Your task to perform on an android device: Go to Reddit.com Image 0: 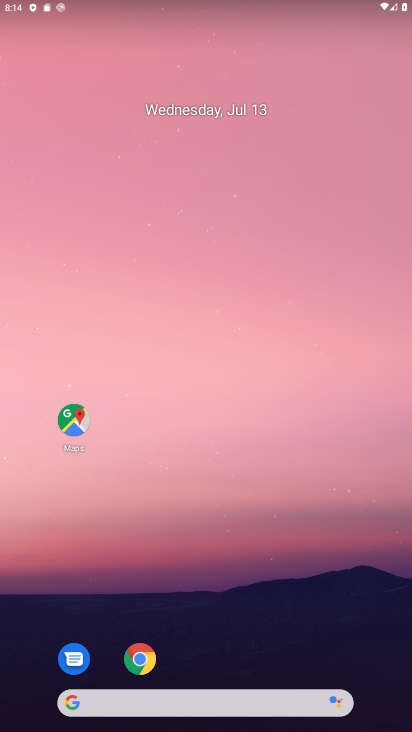
Step 0: click (132, 650)
Your task to perform on an android device: Go to Reddit.com Image 1: 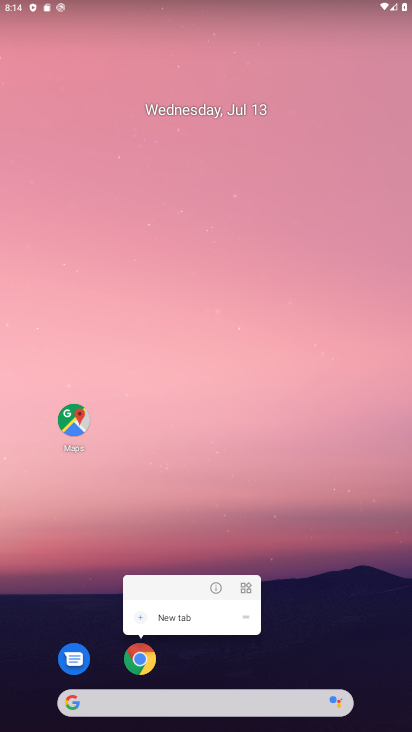
Step 1: click (132, 650)
Your task to perform on an android device: Go to Reddit.com Image 2: 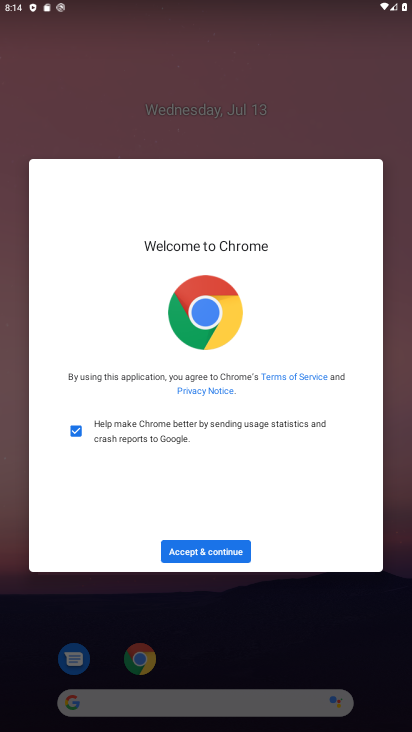
Step 2: click (202, 552)
Your task to perform on an android device: Go to Reddit.com Image 3: 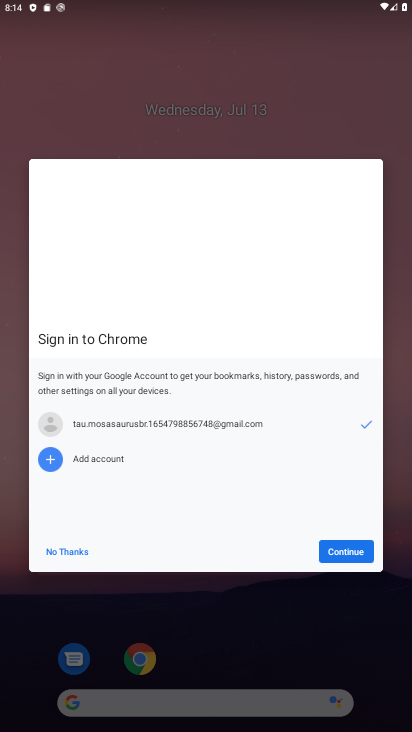
Step 3: click (55, 553)
Your task to perform on an android device: Go to Reddit.com Image 4: 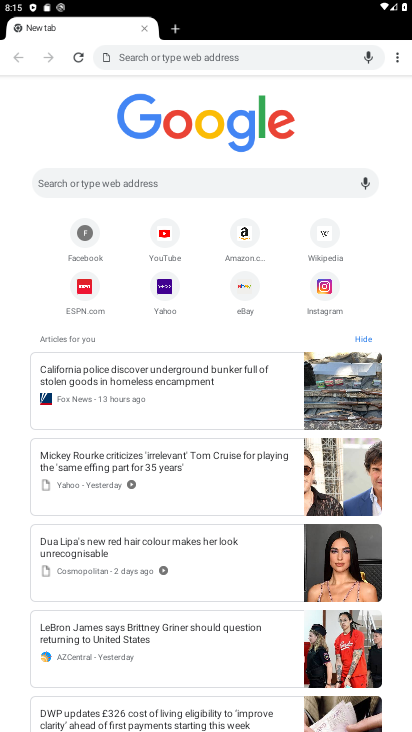
Step 4: click (177, 51)
Your task to perform on an android device: Go to Reddit.com Image 5: 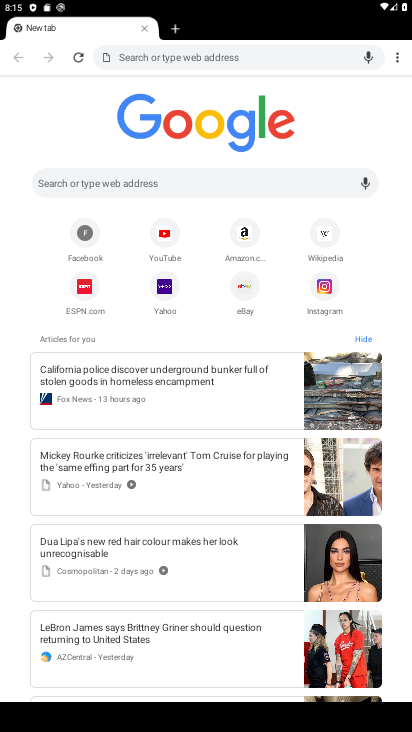
Step 5: type "Reddit.com"
Your task to perform on an android device: Go to Reddit.com Image 6: 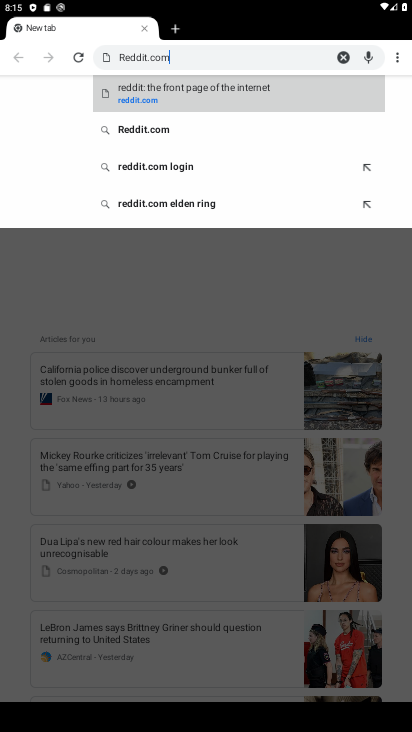
Step 6: type ""
Your task to perform on an android device: Go to Reddit.com Image 7: 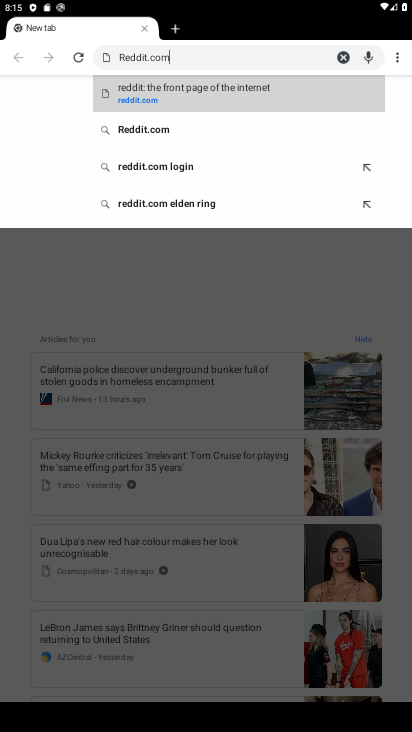
Step 7: type ""
Your task to perform on an android device: Go to Reddit.com Image 8: 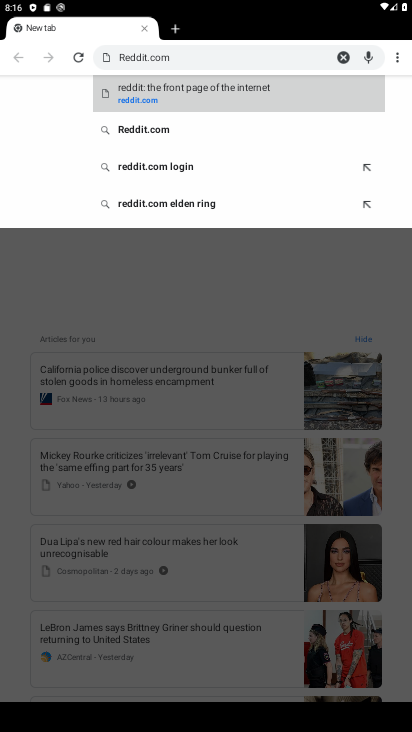
Step 8: click (123, 91)
Your task to perform on an android device: Go to Reddit.com Image 9: 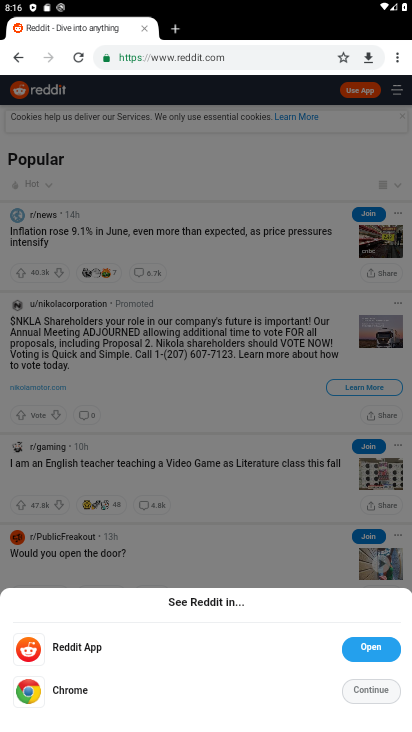
Step 9: task complete